Your task to perform on an android device: Is it going to rain today? Image 0: 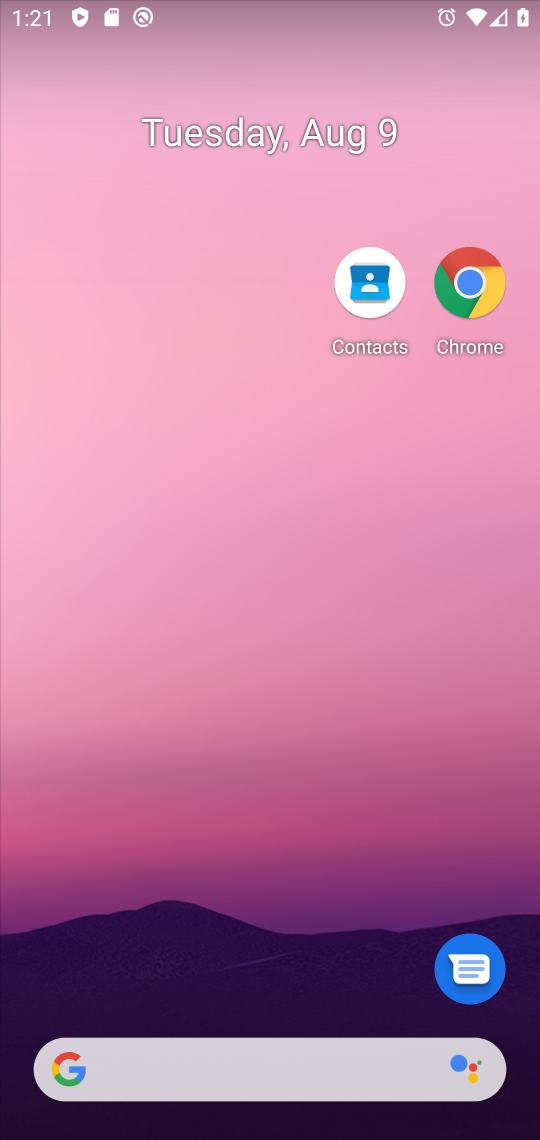
Step 0: drag from (321, 947) to (369, 233)
Your task to perform on an android device: Is it going to rain today? Image 1: 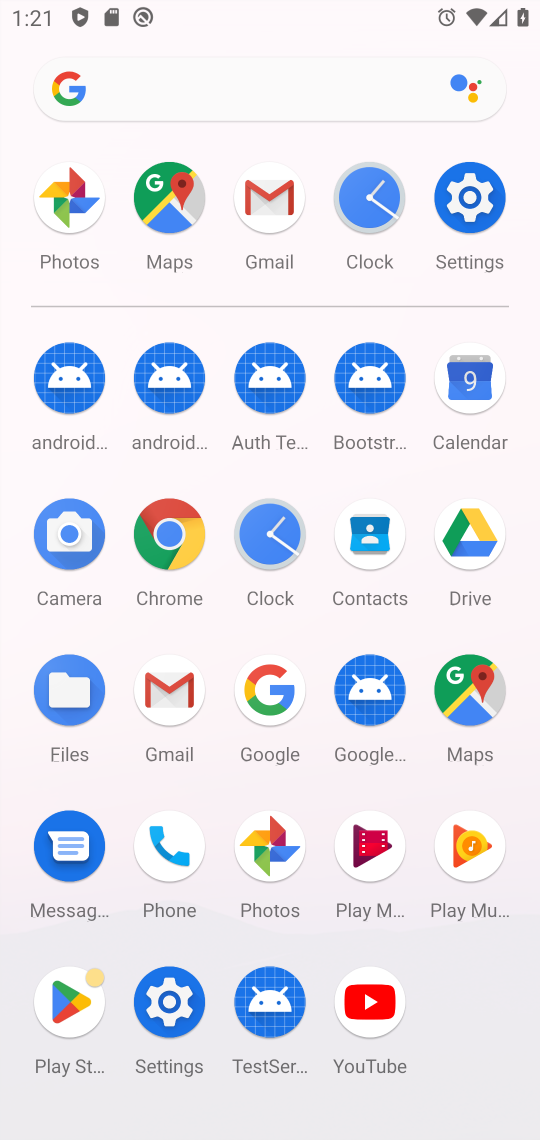
Step 1: click (161, 1011)
Your task to perform on an android device: Is it going to rain today? Image 2: 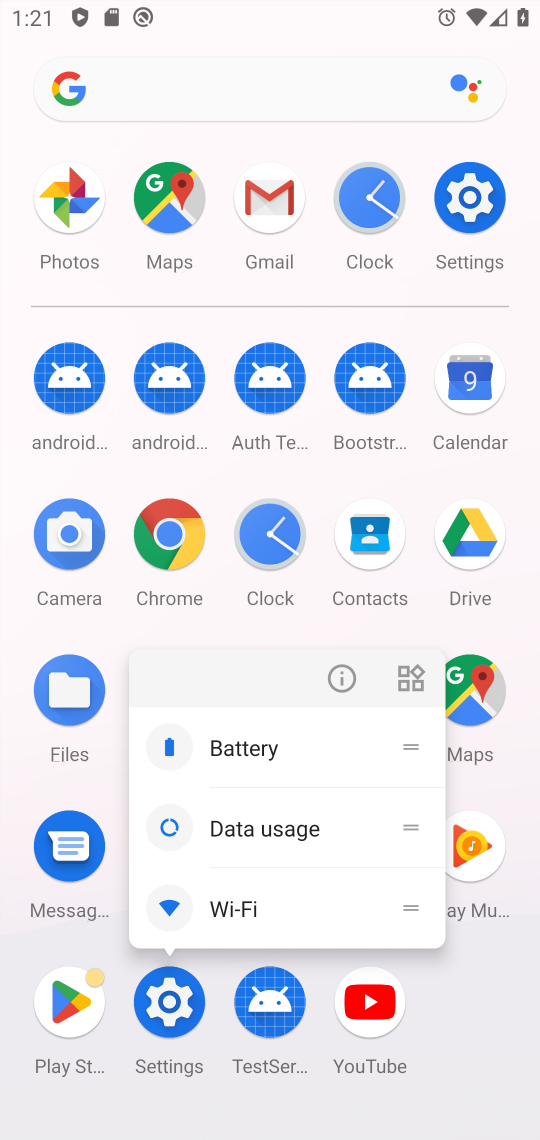
Step 2: click (328, 683)
Your task to perform on an android device: Is it going to rain today? Image 3: 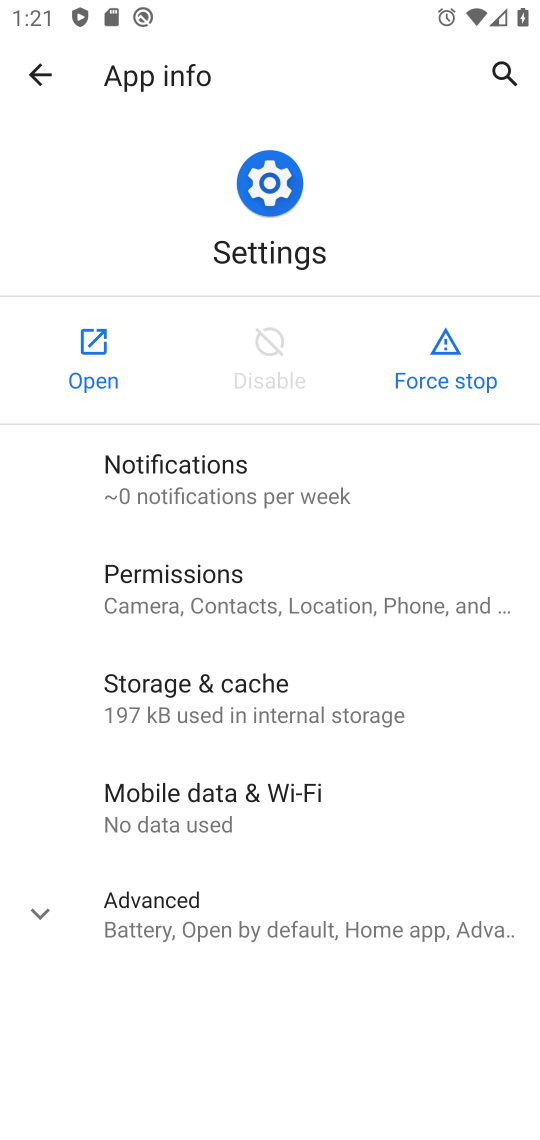
Step 3: click (97, 368)
Your task to perform on an android device: Is it going to rain today? Image 4: 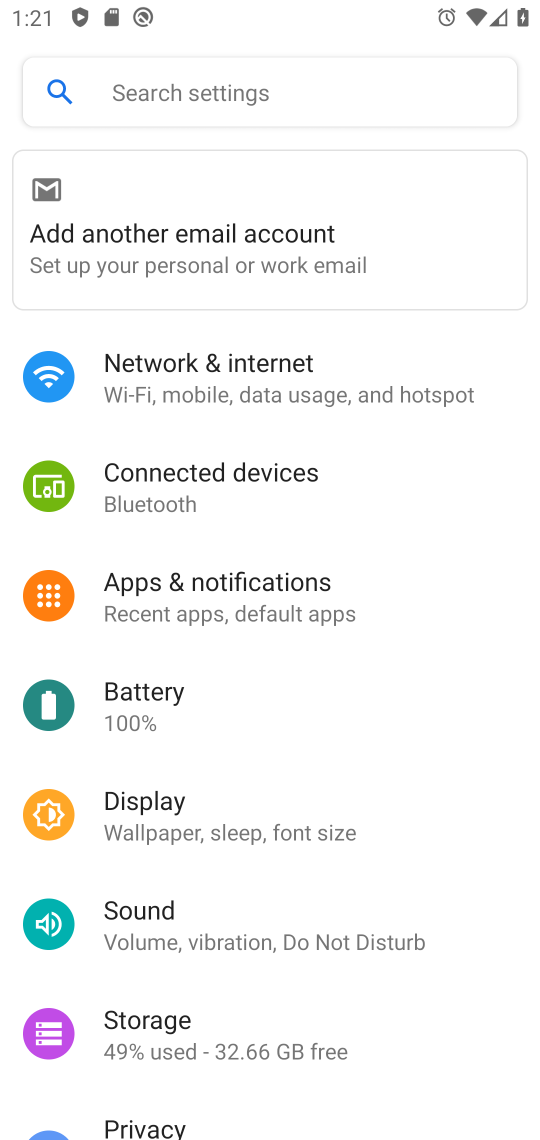
Step 4: press home button
Your task to perform on an android device: Is it going to rain today? Image 5: 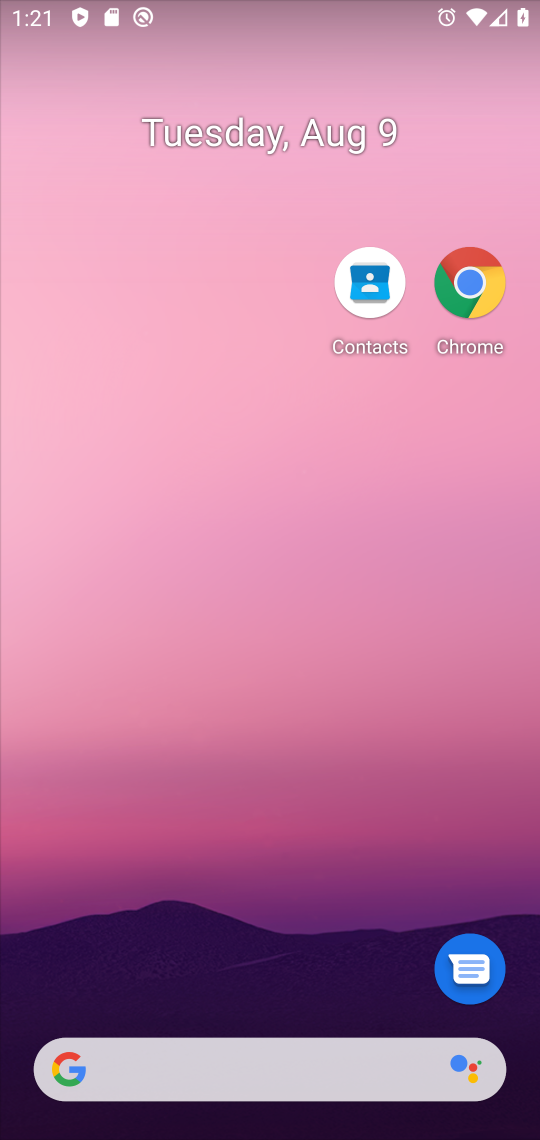
Step 5: click (250, 1066)
Your task to perform on an android device: Is it going to rain today? Image 6: 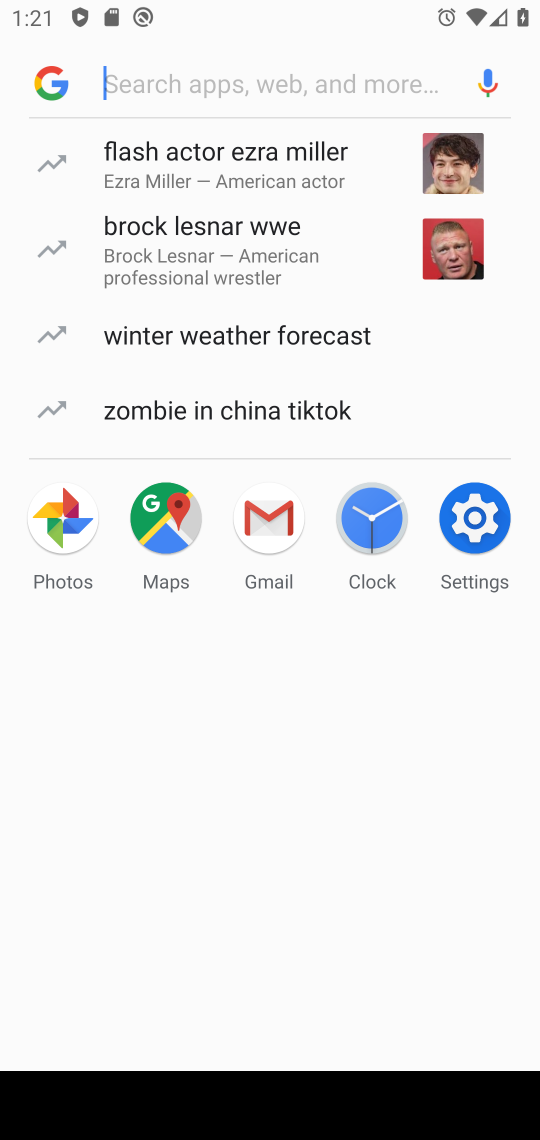
Step 6: click (172, 66)
Your task to perform on an android device: Is it going to rain today? Image 7: 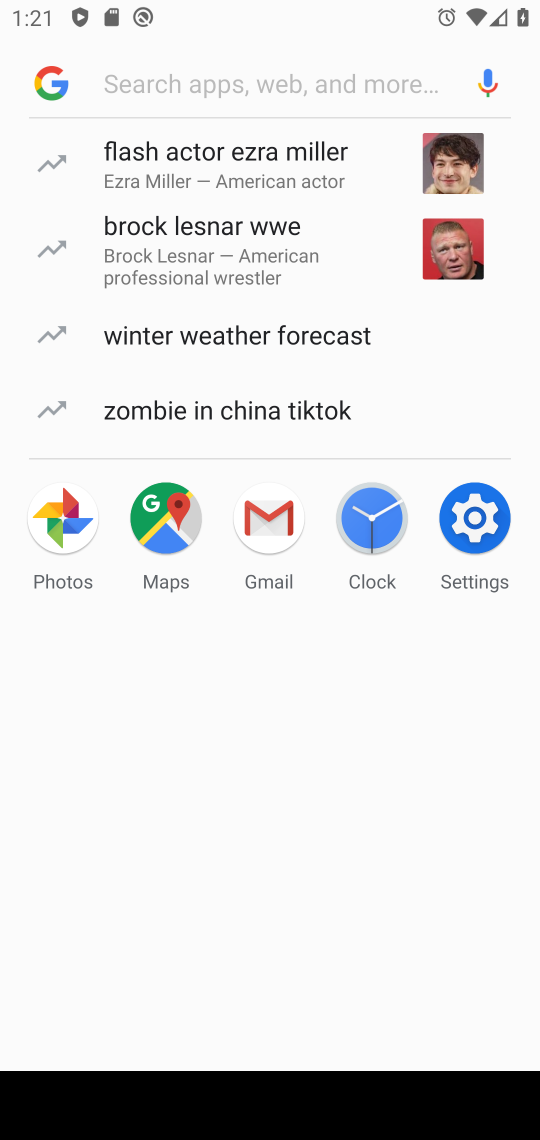
Step 7: click (172, 82)
Your task to perform on an android device: Is it going to rain today? Image 8: 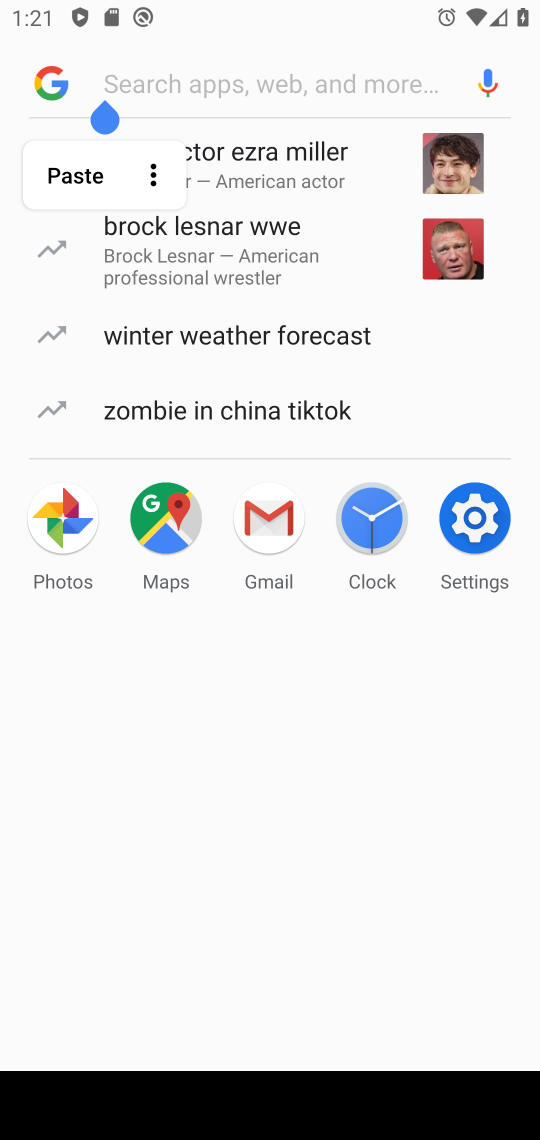
Step 8: type "Is it going to rain today?"
Your task to perform on an android device: Is it going to rain today? Image 9: 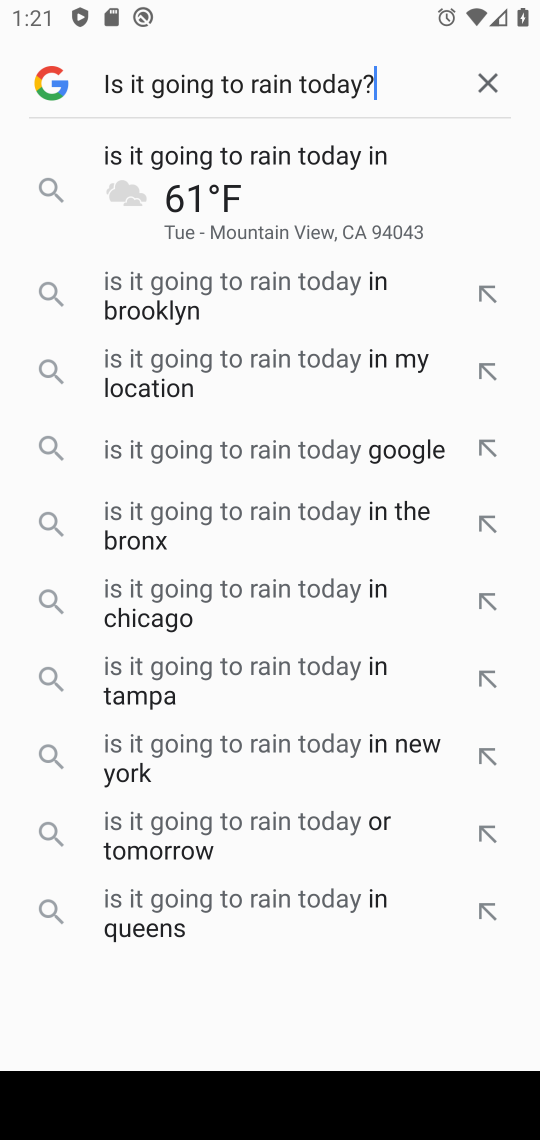
Step 9: type ""
Your task to perform on an android device: Is it going to rain today? Image 10: 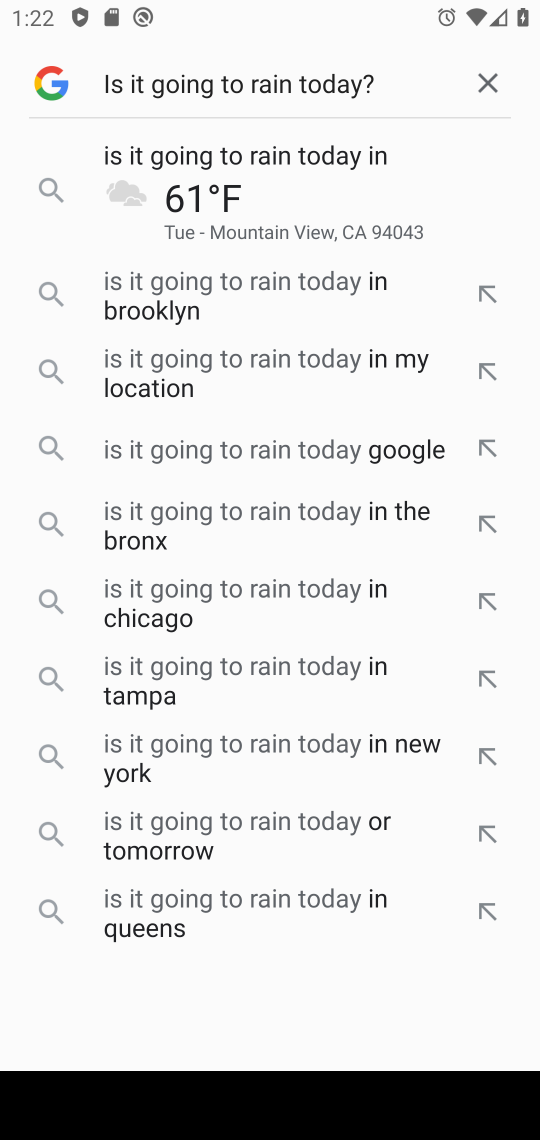
Step 10: click (199, 156)
Your task to perform on an android device: Is it going to rain today? Image 11: 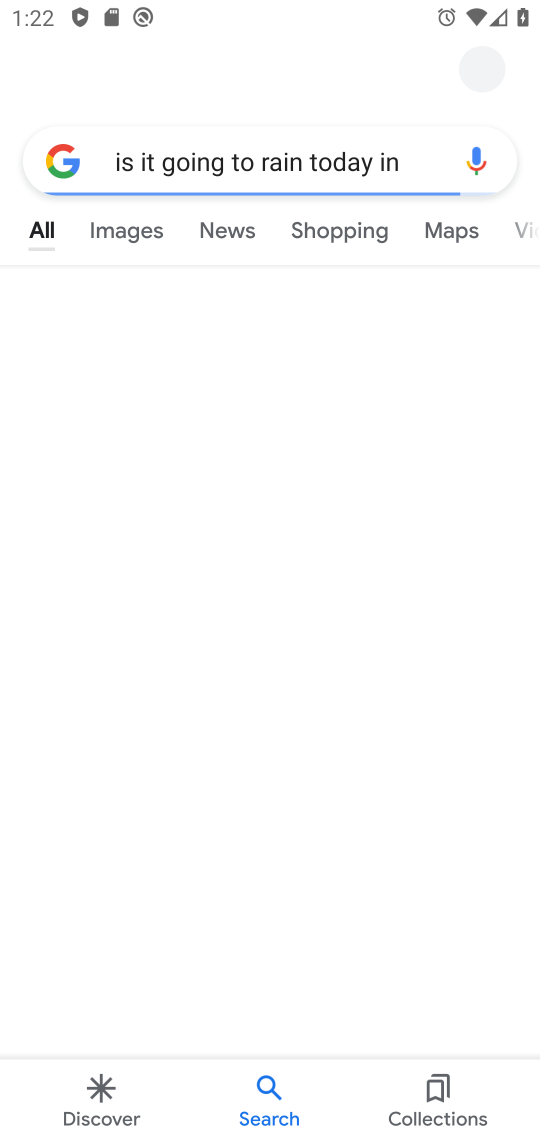
Step 11: task complete